Your task to perform on an android device: Open Chrome and go to the settings page Image 0: 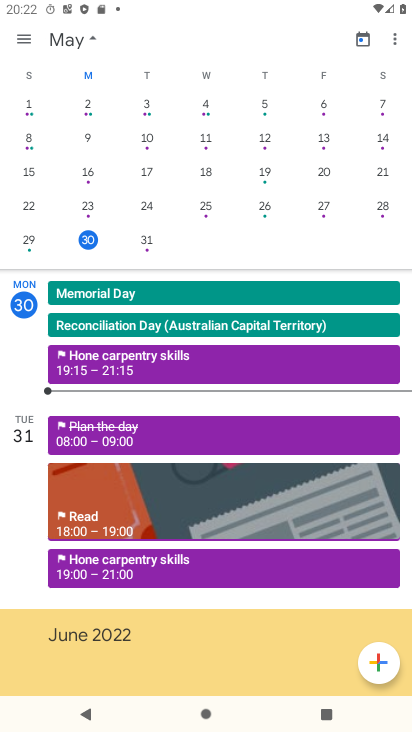
Step 0: press home button
Your task to perform on an android device: Open Chrome and go to the settings page Image 1: 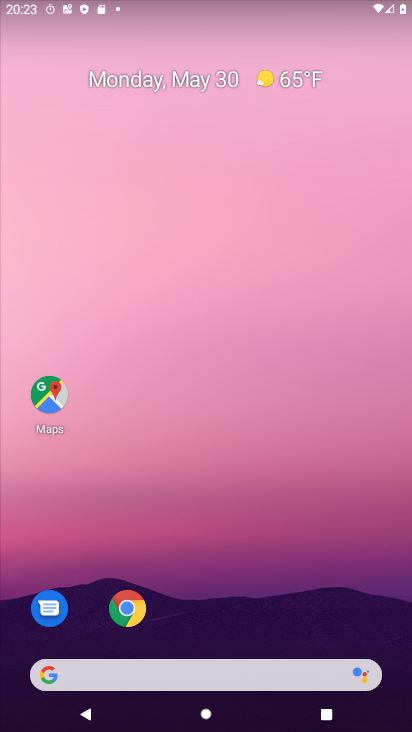
Step 1: click (135, 593)
Your task to perform on an android device: Open Chrome and go to the settings page Image 2: 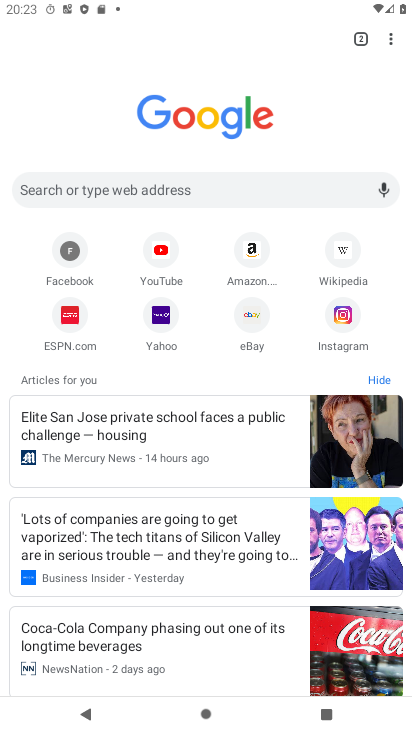
Step 2: click (394, 32)
Your task to perform on an android device: Open Chrome and go to the settings page Image 3: 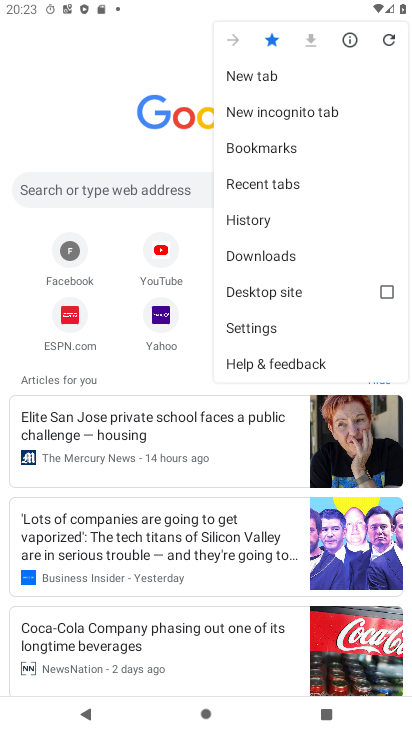
Step 3: click (235, 326)
Your task to perform on an android device: Open Chrome and go to the settings page Image 4: 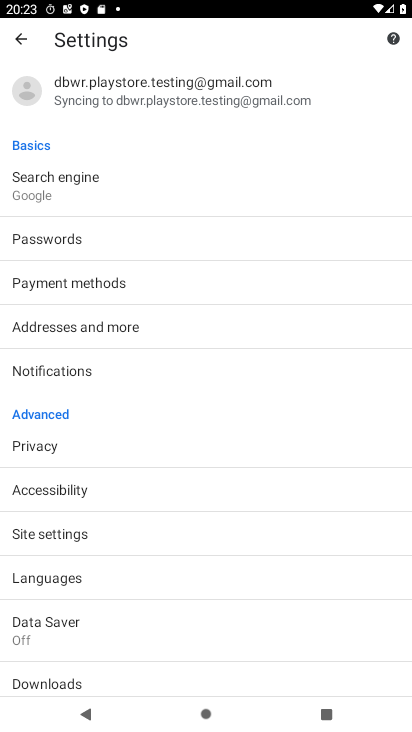
Step 4: task complete